Your task to perform on an android device: Go to privacy settings Image 0: 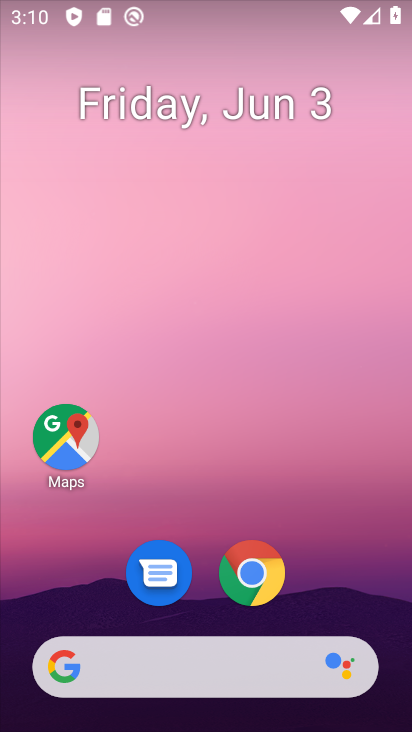
Step 0: click (266, 557)
Your task to perform on an android device: Go to privacy settings Image 1: 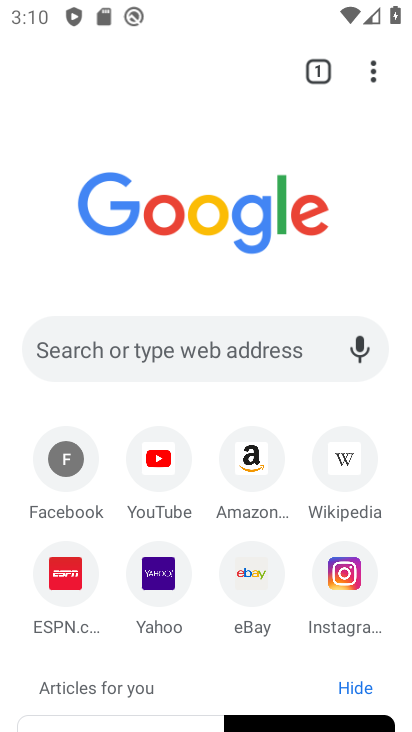
Step 1: click (371, 62)
Your task to perform on an android device: Go to privacy settings Image 2: 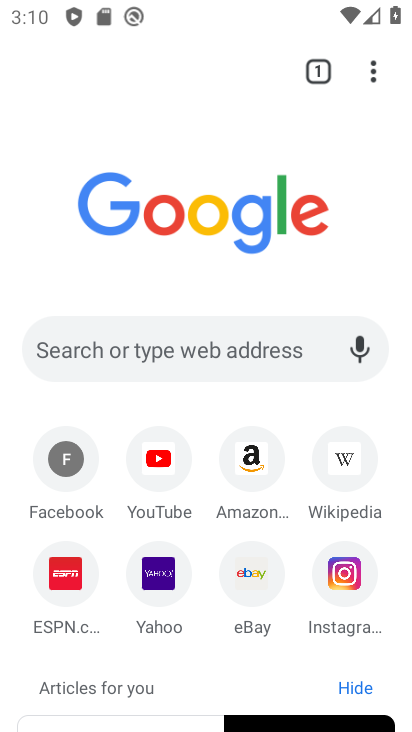
Step 2: click (369, 78)
Your task to perform on an android device: Go to privacy settings Image 3: 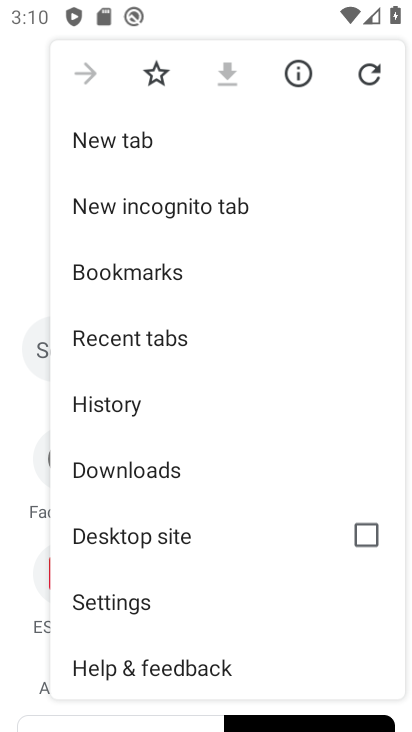
Step 3: click (121, 613)
Your task to perform on an android device: Go to privacy settings Image 4: 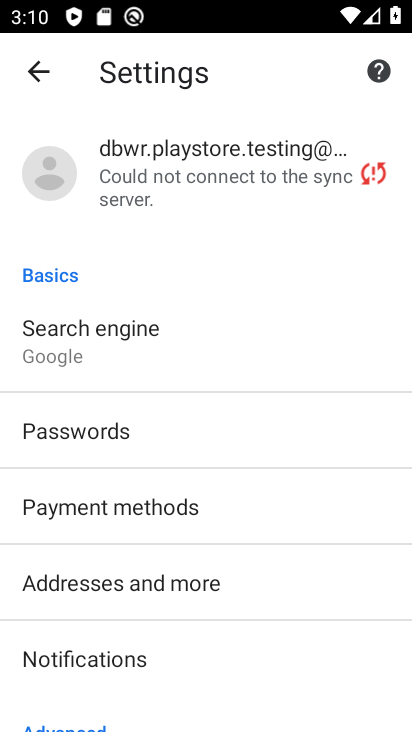
Step 4: drag from (278, 669) to (294, 310)
Your task to perform on an android device: Go to privacy settings Image 5: 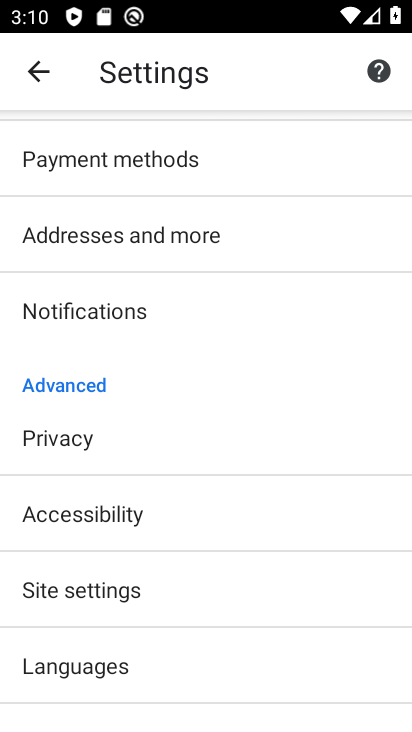
Step 5: drag from (200, 666) to (195, 608)
Your task to perform on an android device: Go to privacy settings Image 6: 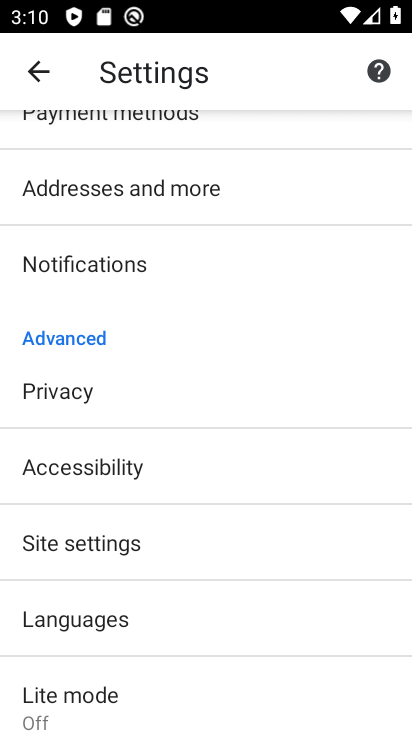
Step 6: click (68, 390)
Your task to perform on an android device: Go to privacy settings Image 7: 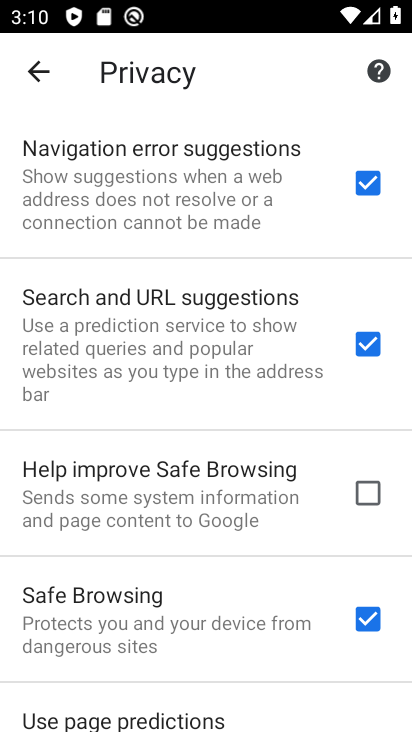
Step 7: task complete